Your task to perform on an android device: check google app version Image 0: 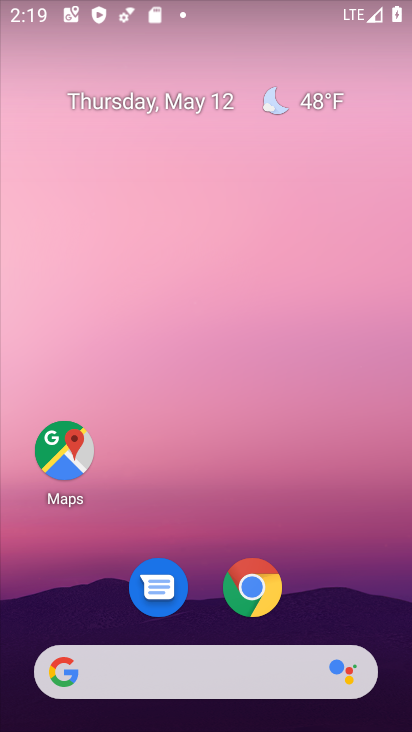
Step 0: drag from (202, 614) to (202, 143)
Your task to perform on an android device: check google app version Image 1: 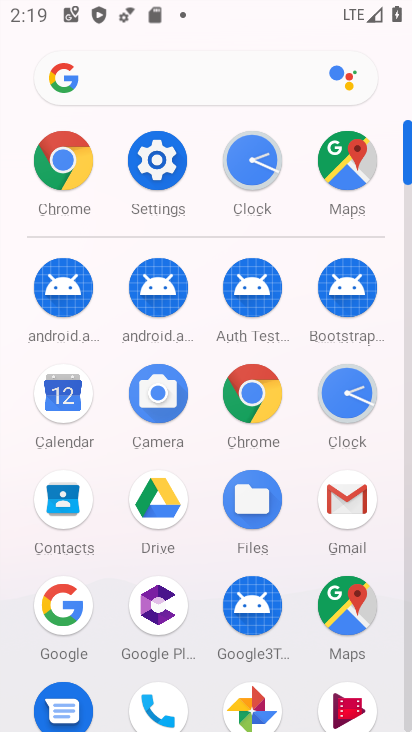
Step 1: click (81, 614)
Your task to perform on an android device: check google app version Image 2: 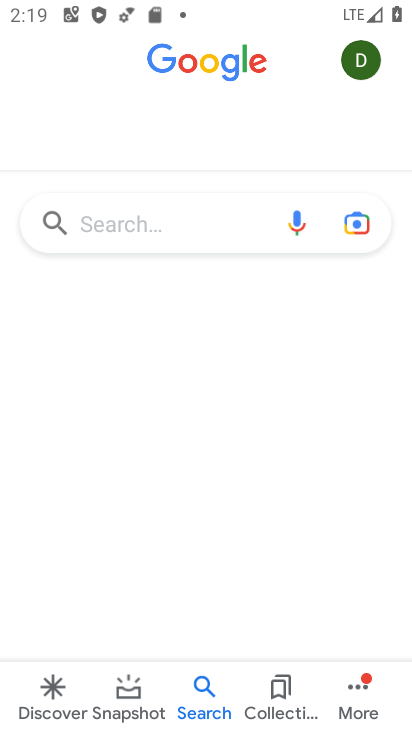
Step 2: click (367, 689)
Your task to perform on an android device: check google app version Image 3: 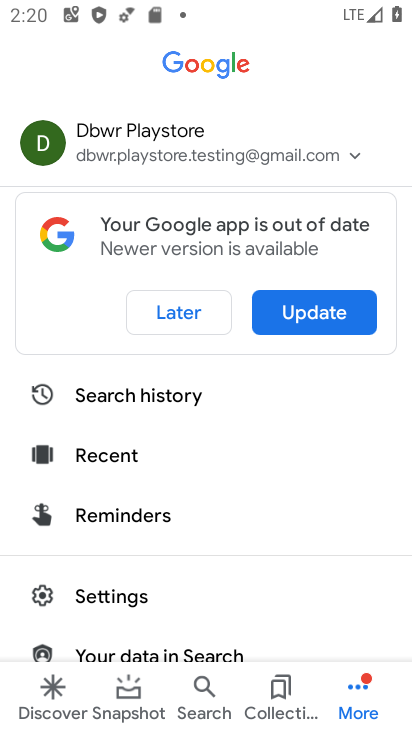
Step 3: click (158, 599)
Your task to perform on an android device: check google app version Image 4: 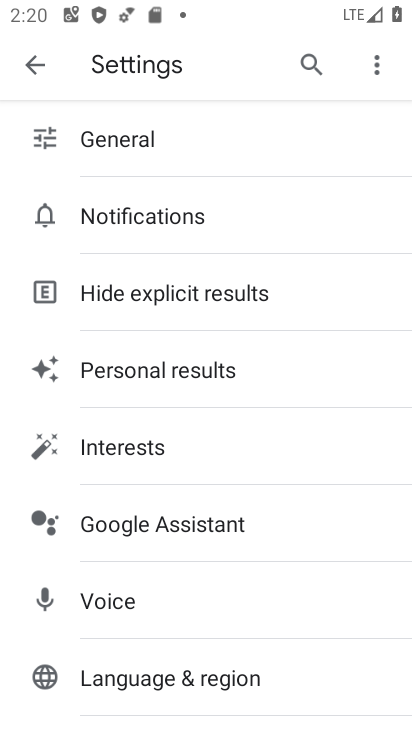
Step 4: drag from (164, 628) to (206, 348)
Your task to perform on an android device: check google app version Image 5: 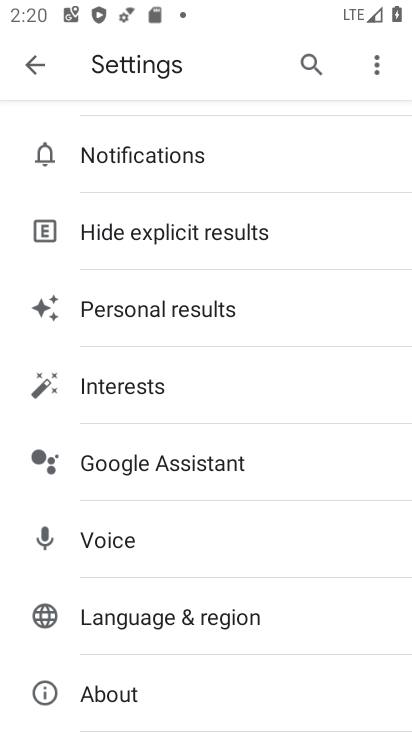
Step 5: click (185, 699)
Your task to perform on an android device: check google app version Image 6: 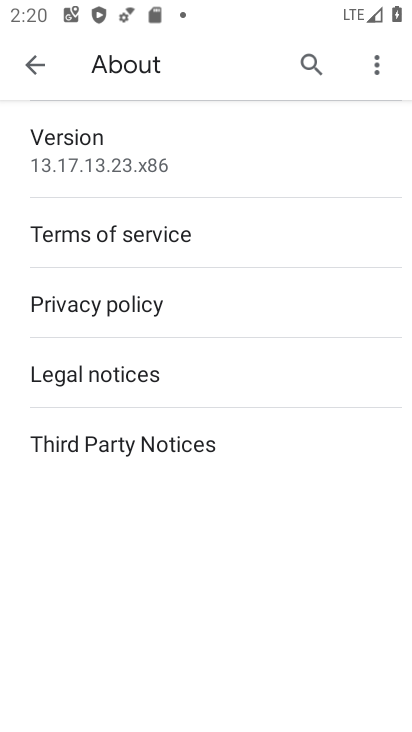
Step 6: task complete